Your task to perform on an android device: Open eBay Image 0: 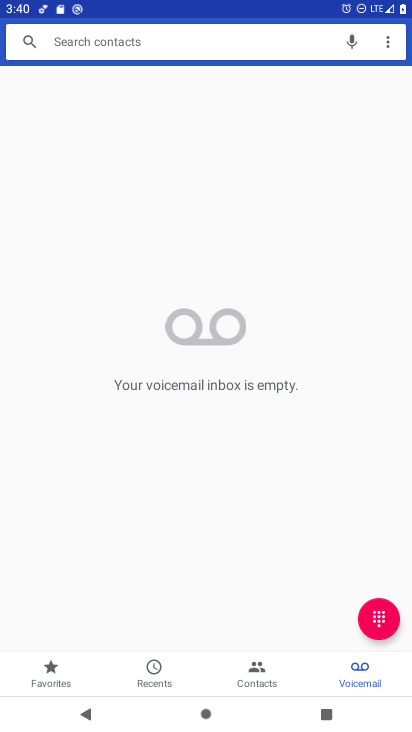
Step 0: press home button
Your task to perform on an android device: Open eBay Image 1: 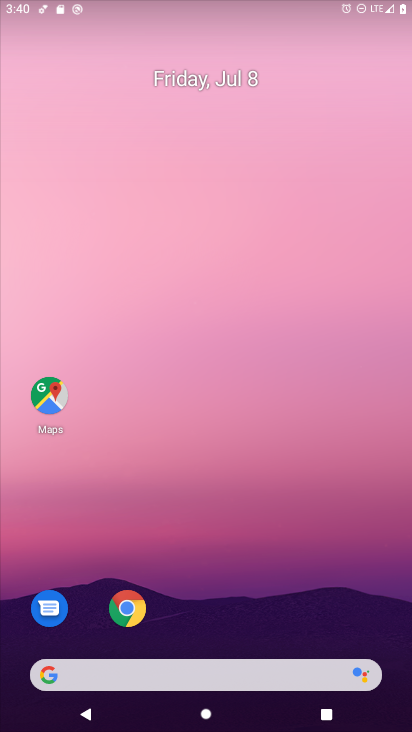
Step 1: drag from (276, 636) to (296, 36)
Your task to perform on an android device: Open eBay Image 2: 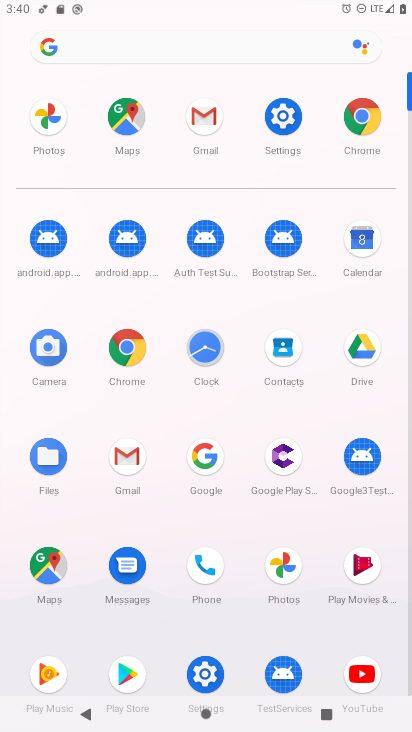
Step 2: click (132, 328)
Your task to perform on an android device: Open eBay Image 3: 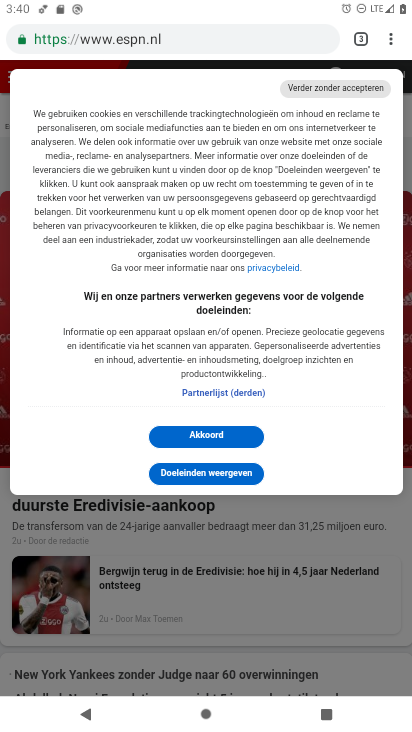
Step 3: drag from (384, 37) to (283, 72)
Your task to perform on an android device: Open eBay Image 4: 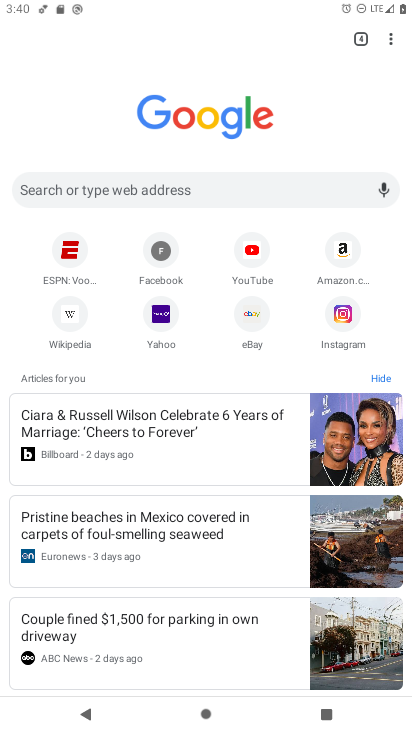
Step 4: click (258, 318)
Your task to perform on an android device: Open eBay Image 5: 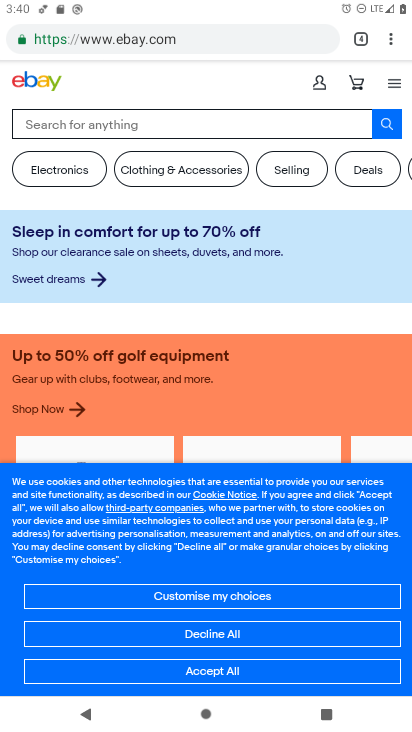
Step 5: task complete